Your task to perform on an android device: open app "Etsy: Buy & Sell Unique Items" Image 0: 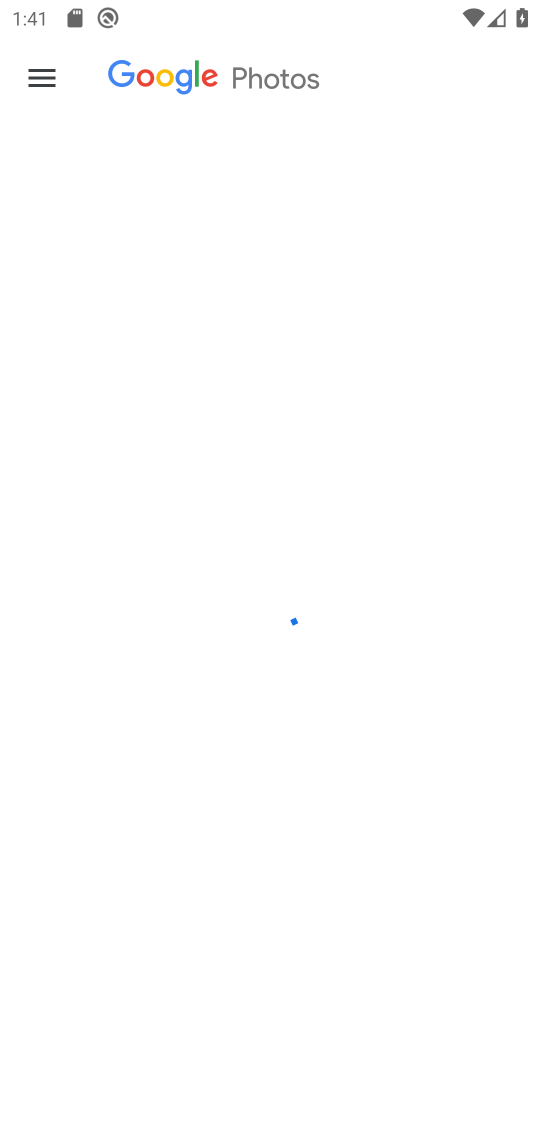
Step 0: press home button
Your task to perform on an android device: open app "Etsy: Buy & Sell Unique Items" Image 1: 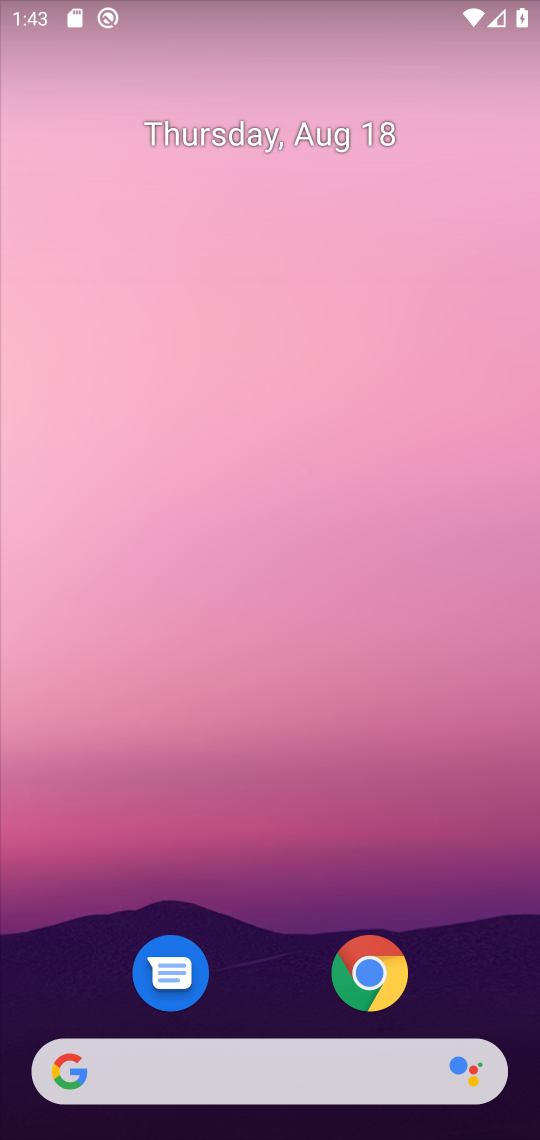
Step 1: drag from (295, 1008) to (195, 209)
Your task to perform on an android device: open app "Etsy: Buy & Sell Unique Items" Image 2: 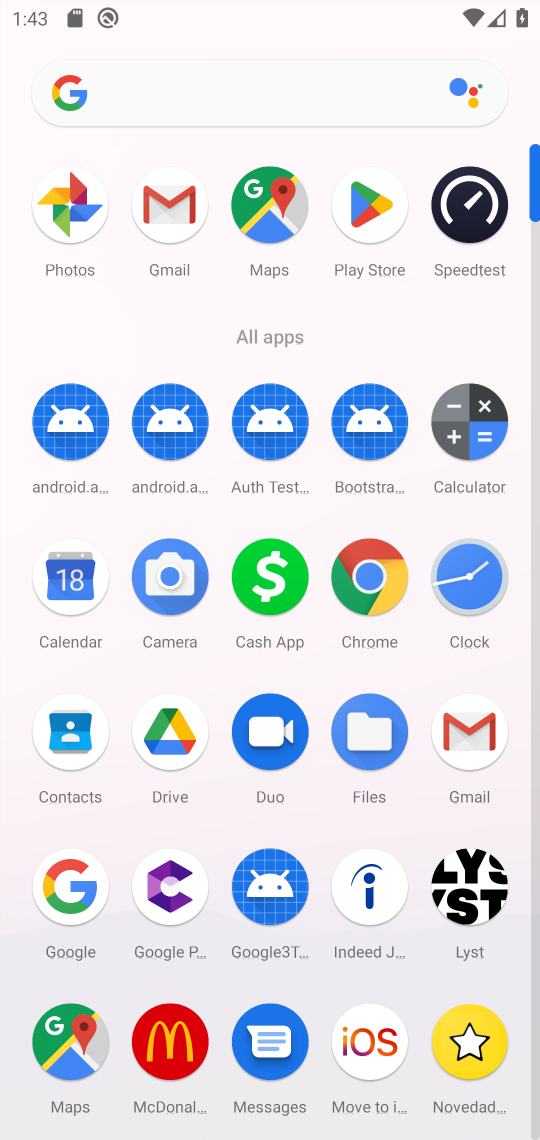
Step 2: click (539, 1126)
Your task to perform on an android device: open app "Etsy: Buy & Sell Unique Items" Image 3: 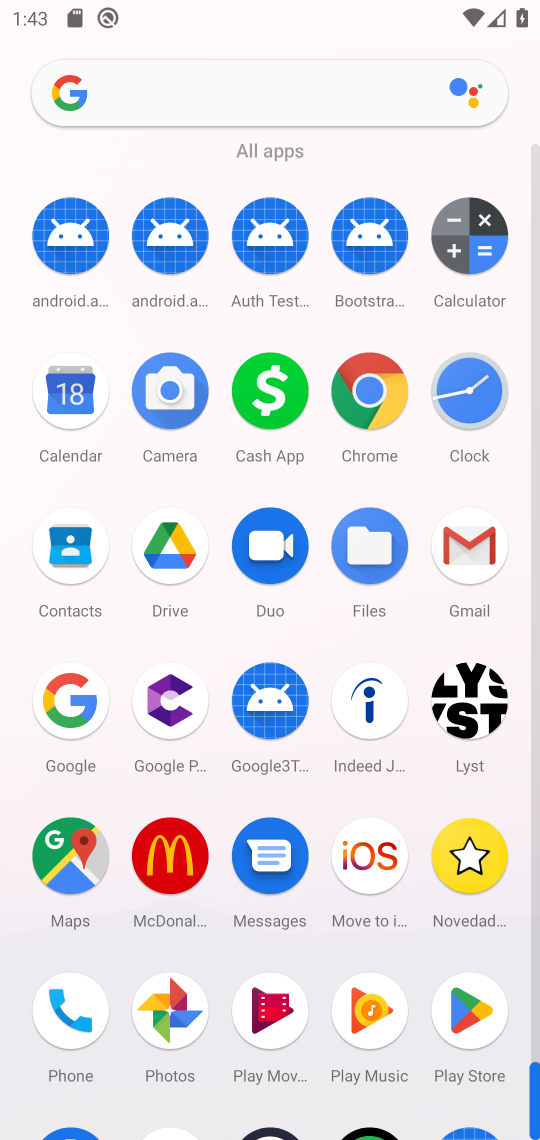
Step 3: click (446, 1000)
Your task to perform on an android device: open app "Etsy: Buy & Sell Unique Items" Image 4: 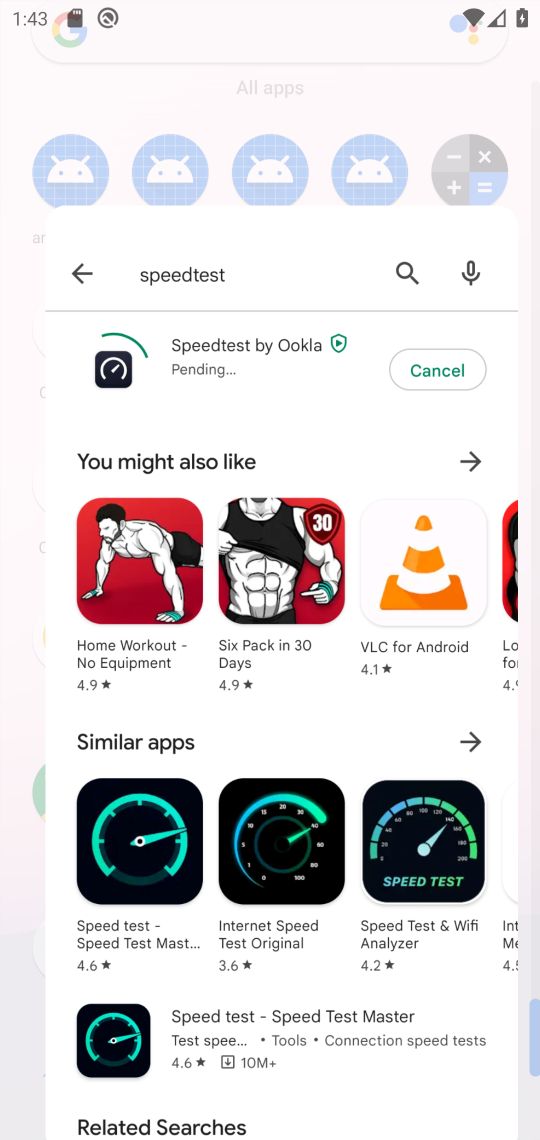
Step 4: task complete